Your task to perform on an android device: Go to Google Image 0: 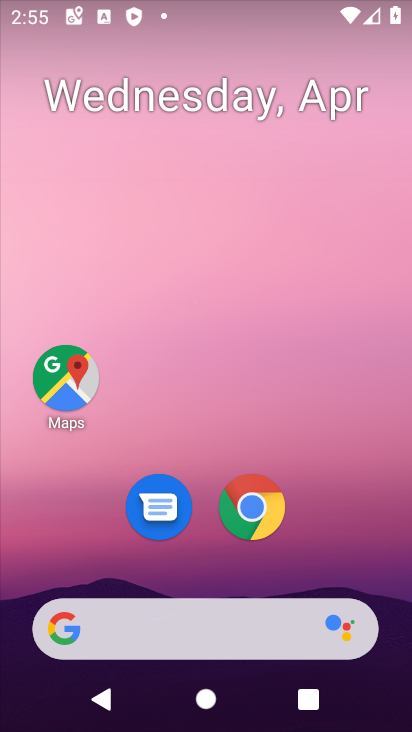
Step 0: drag from (320, 532) to (300, 89)
Your task to perform on an android device: Go to Google Image 1: 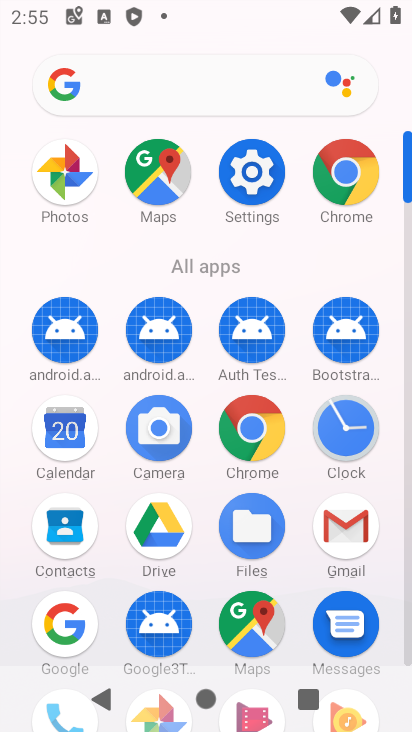
Step 1: click (66, 618)
Your task to perform on an android device: Go to Google Image 2: 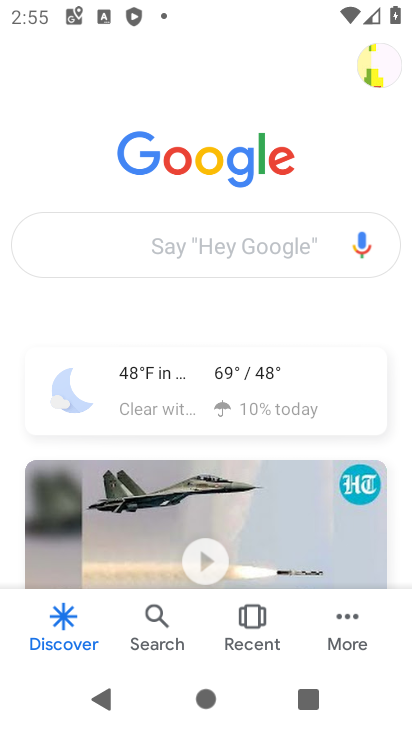
Step 2: task complete